Your task to perform on an android device: When is my next appointment? Image 0: 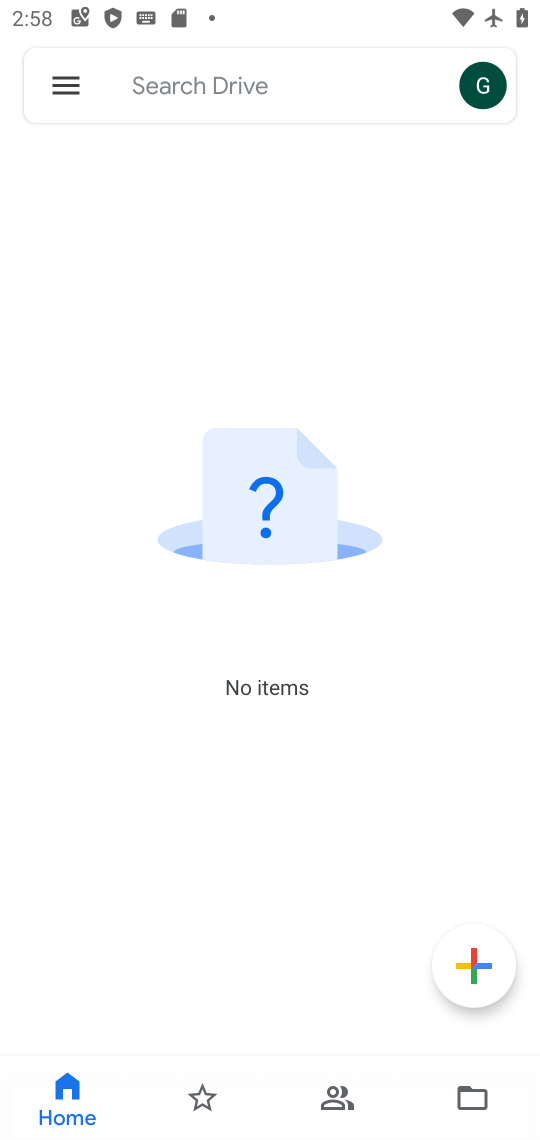
Step 0: press back button
Your task to perform on an android device: When is my next appointment? Image 1: 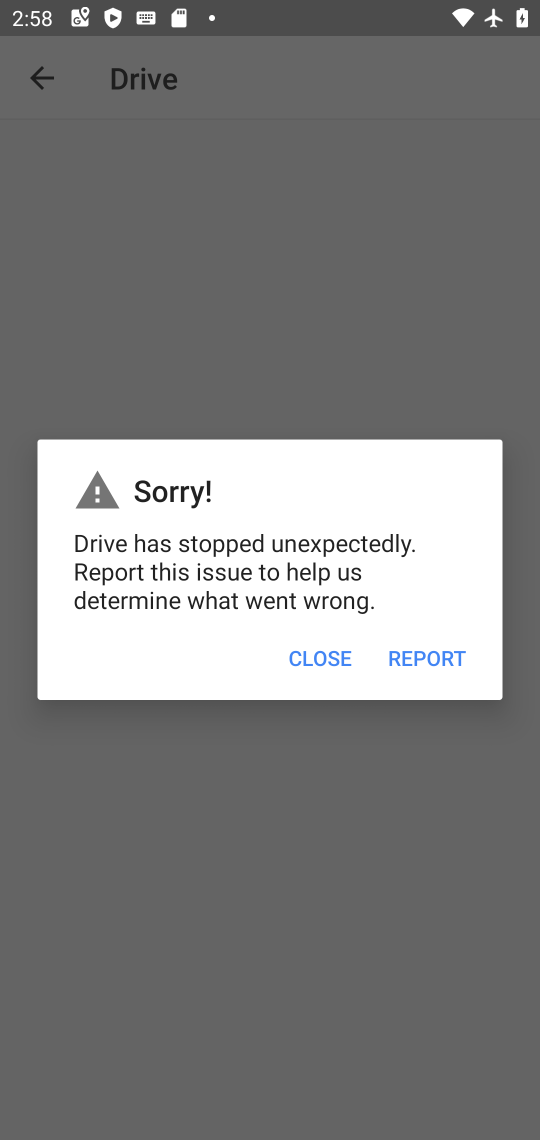
Step 1: press home button
Your task to perform on an android device: When is my next appointment? Image 2: 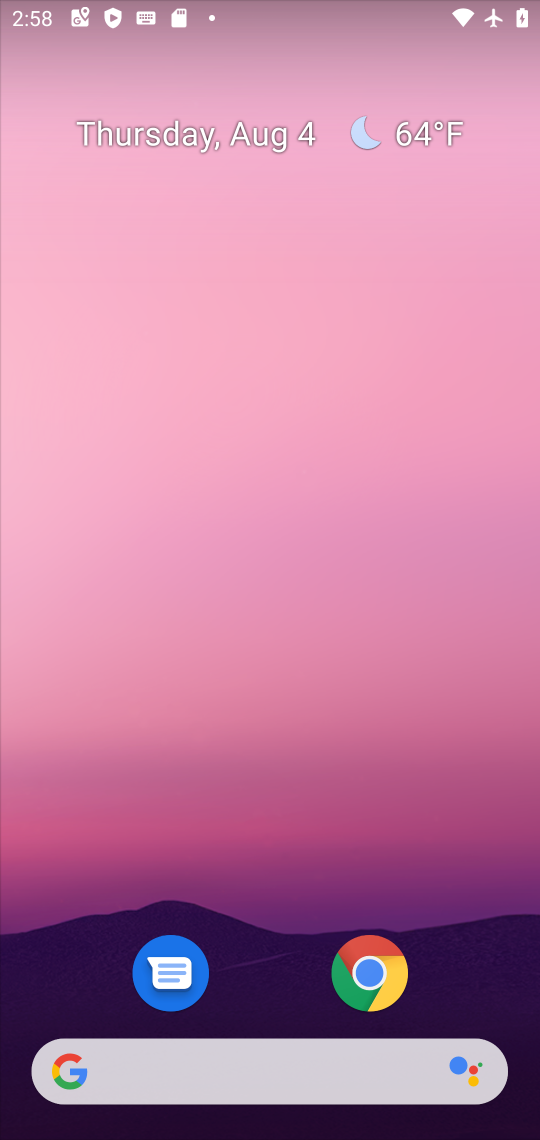
Step 2: drag from (271, 1048) to (267, 243)
Your task to perform on an android device: When is my next appointment? Image 3: 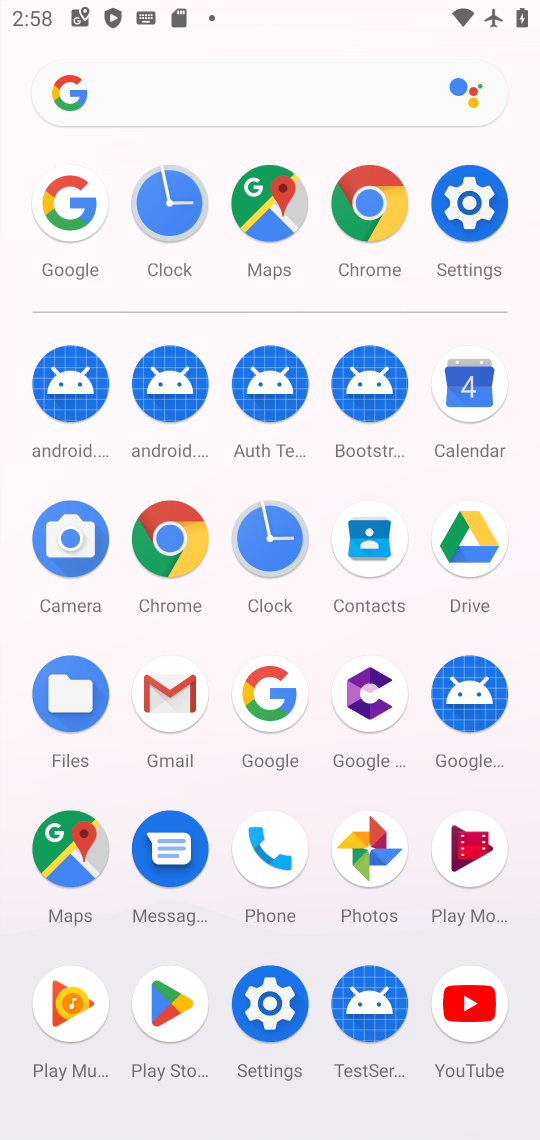
Step 3: click (454, 393)
Your task to perform on an android device: When is my next appointment? Image 4: 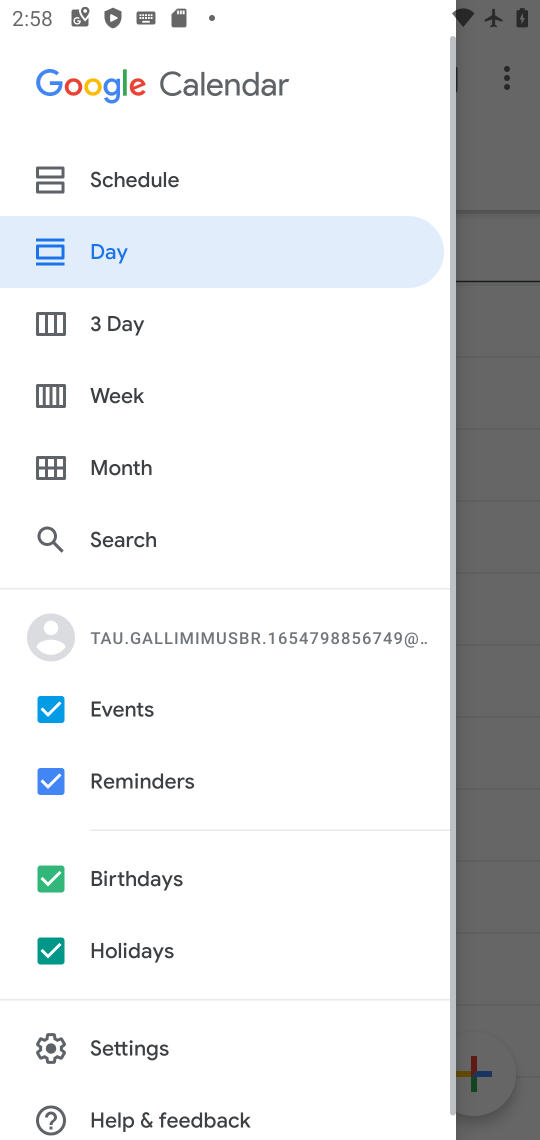
Step 4: click (104, 396)
Your task to perform on an android device: When is my next appointment? Image 5: 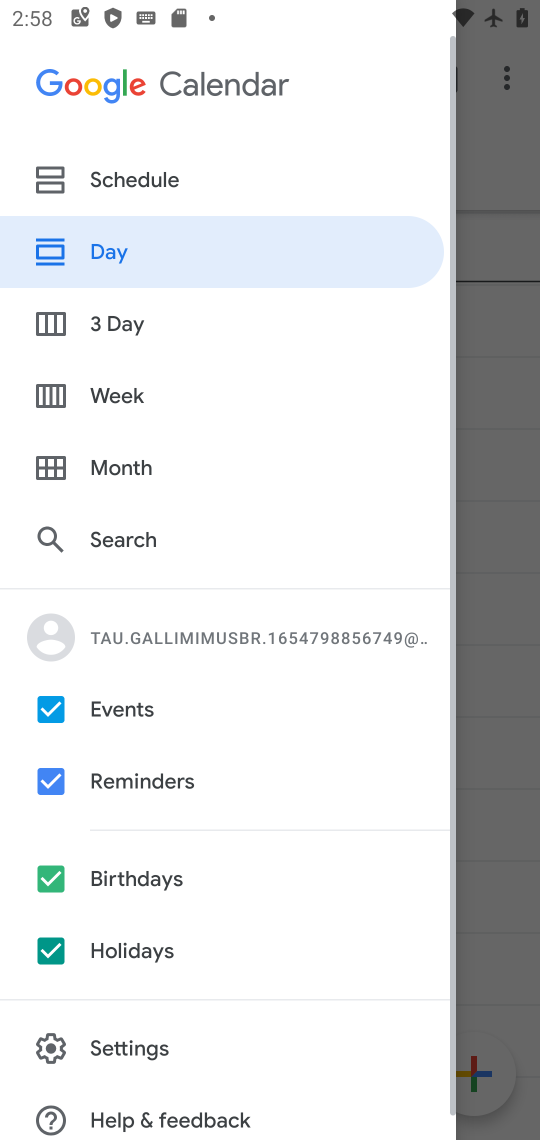
Step 5: click (133, 400)
Your task to perform on an android device: When is my next appointment? Image 6: 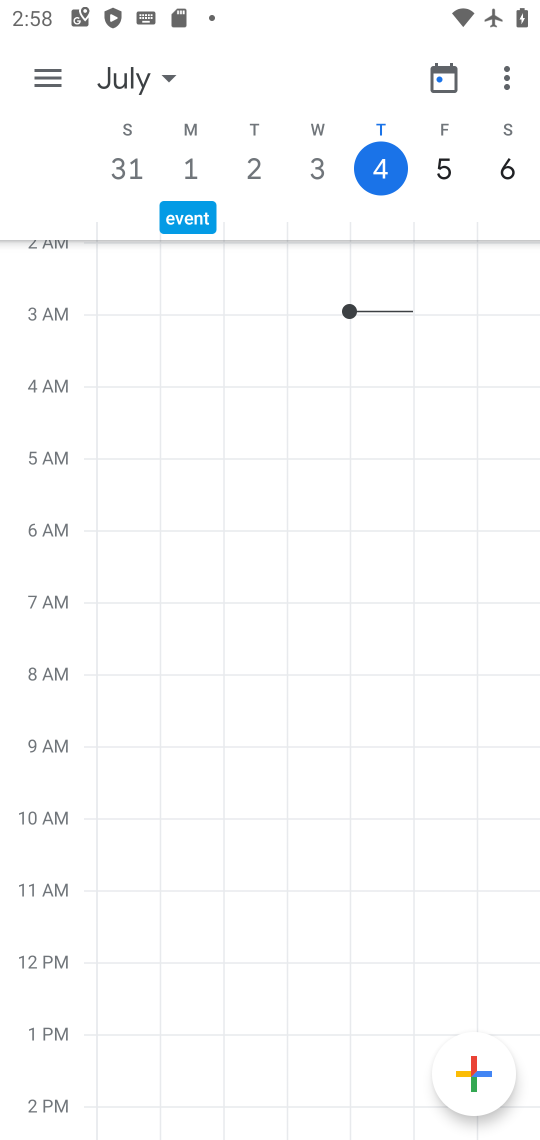
Step 6: task complete